Your task to perform on an android device: find snoozed emails in the gmail app Image 0: 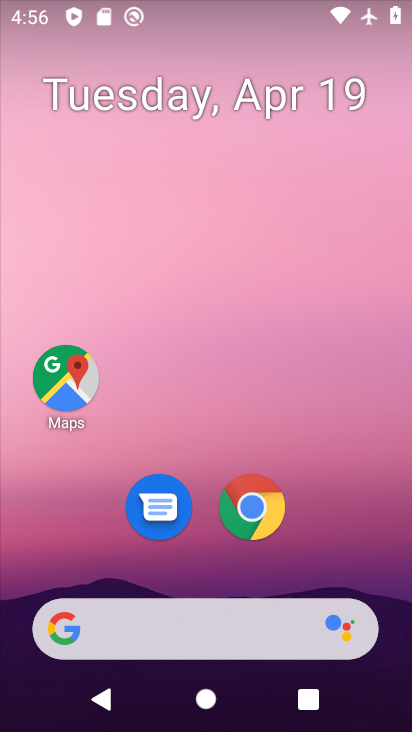
Step 0: drag from (340, 508) to (300, 79)
Your task to perform on an android device: find snoozed emails in the gmail app Image 1: 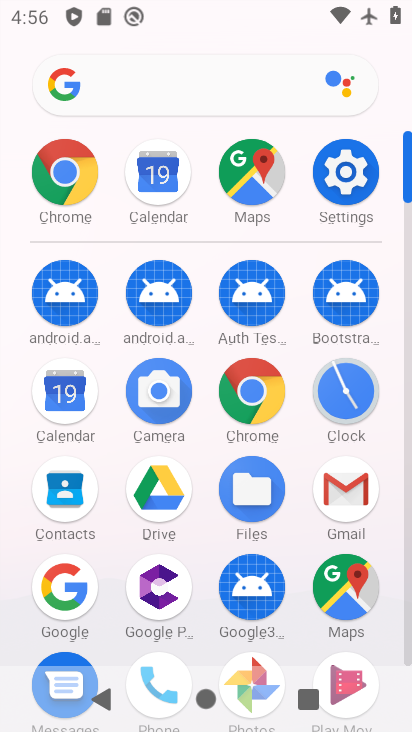
Step 1: click (336, 501)
Your task to perform on an android device: find snoozed emails in the gmail app Image 2: 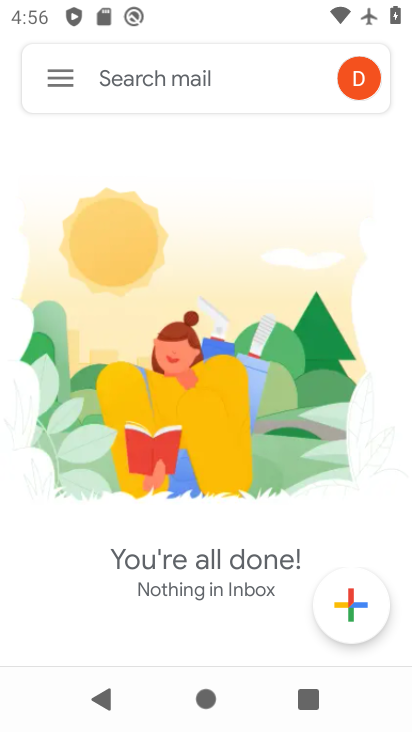
Step 2: click (56, 79)
Your task to perform on an android device: find snoozed emails in the gmail app Image 3: 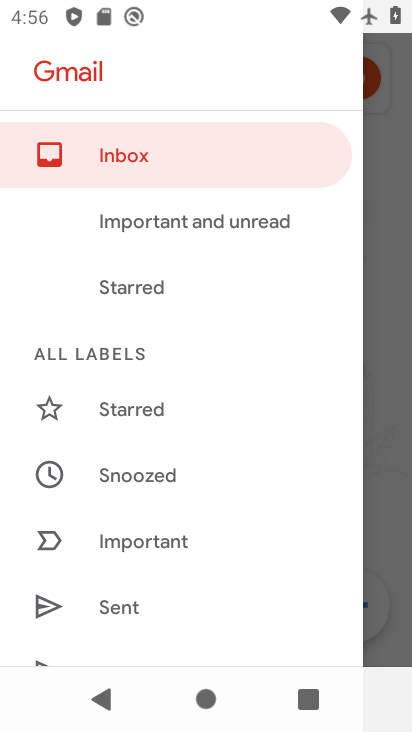
Step 3: click (115, 477)
Your task to perform on an android device: find snoozed emails in the gmail app Image 4: 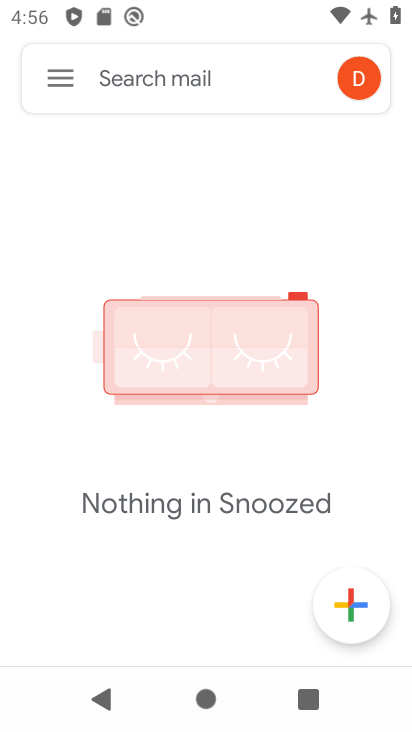
Step 4: task complete